Your task to perform on an android device: empty trash in the gmail app Image 0: 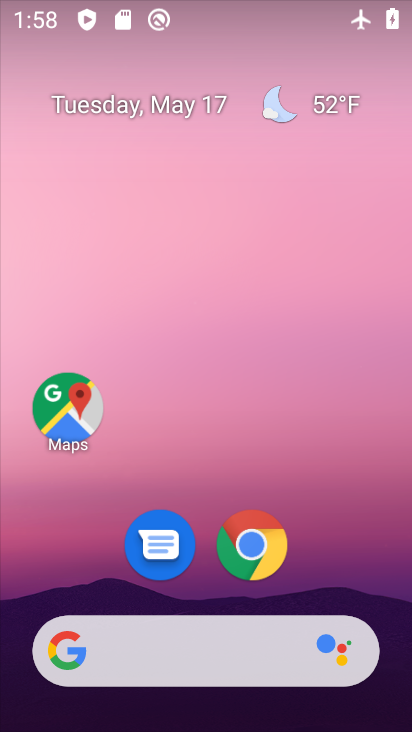
Step 0: drag from (364, 572) to (380, 80)
Your task to perform on an android device: empty trash in the gmail app Image 1: 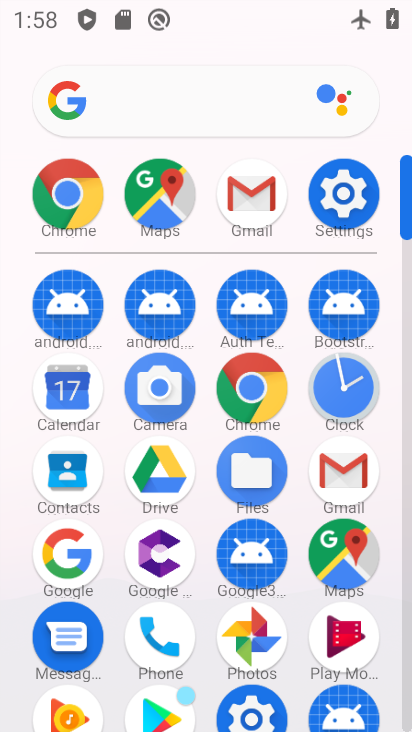
Step 1: click (365, 491)
Your task to perform on an android device: empty trash in the gmail app Image 2: 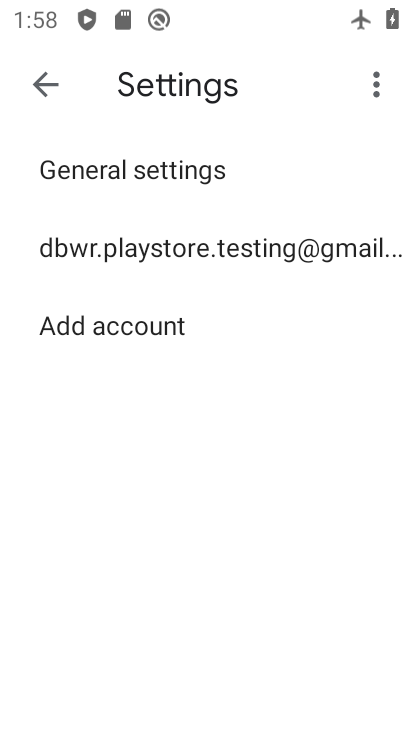
Step 2: click (28, 82)
Your task to perform on an android device: empty trash in the gmail app Image 3: 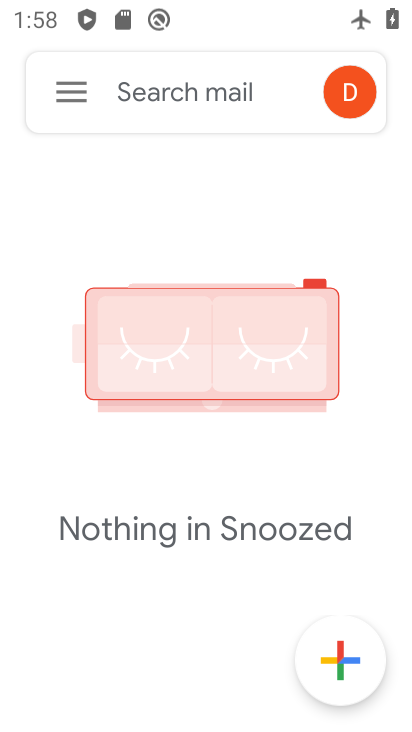
Step 3: click (75, 93)
Your task to perform on an android device: empty trash in the gmail app Image 4: 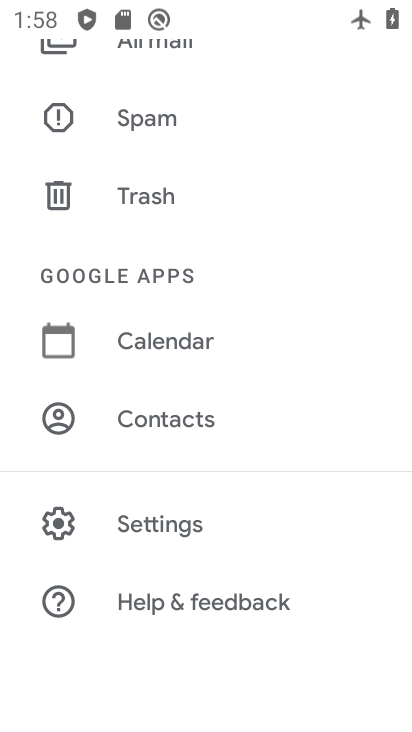
Step 4: drag from (346, 371) to (347, 492)
Your task to perform on an android device: empty trash in the gmail app Image 5: 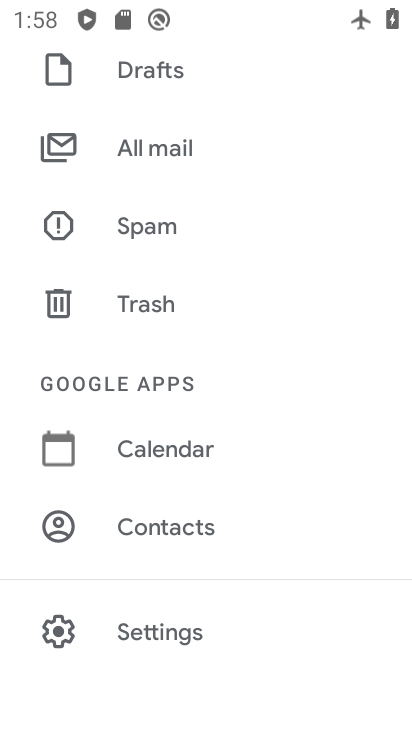
Step 5: drag from (345, 326) to (333, 460)
Your task to perform on an android device: empty trash in the gmail app Image 6: 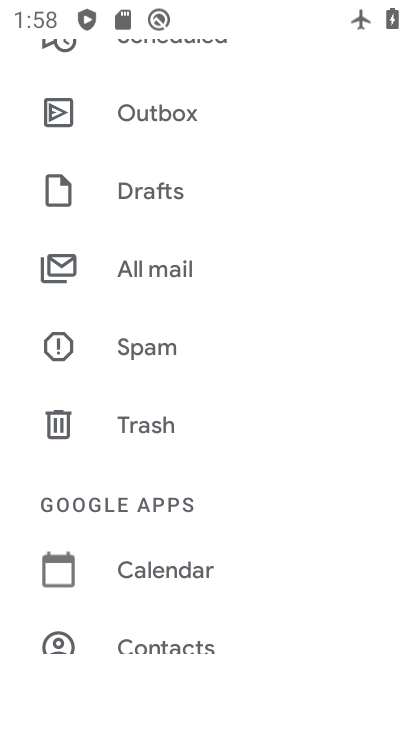
Step 6: drag from (316, 253) to (321, 440)
Your task to perform on an android device: empty trash in the gmail app Image 7: 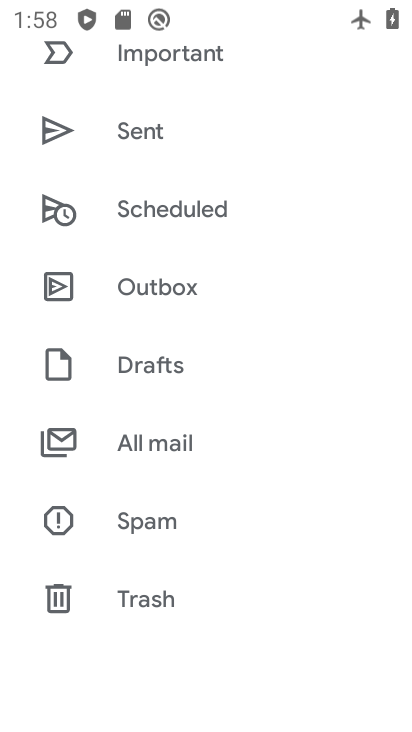
Step 7: drag from (326, 224) to (329, 401)
Your task to perform on an android device: empty trash in the gmail app Image 8: 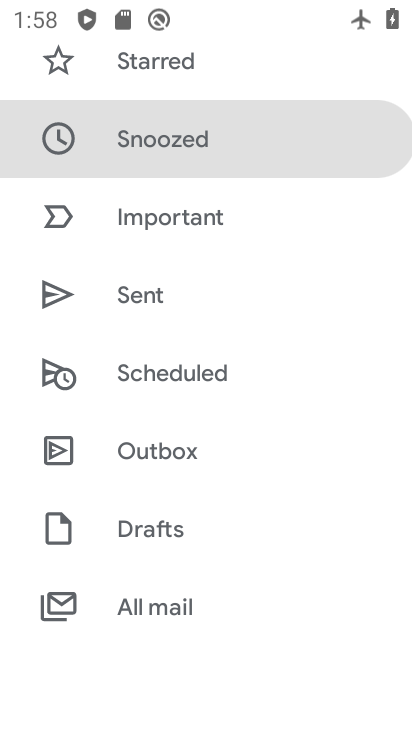
Step 8: drag from (312, 225) to (298, 410)
Your task to perform on an android device: empty trash in the gmail app Image 9: 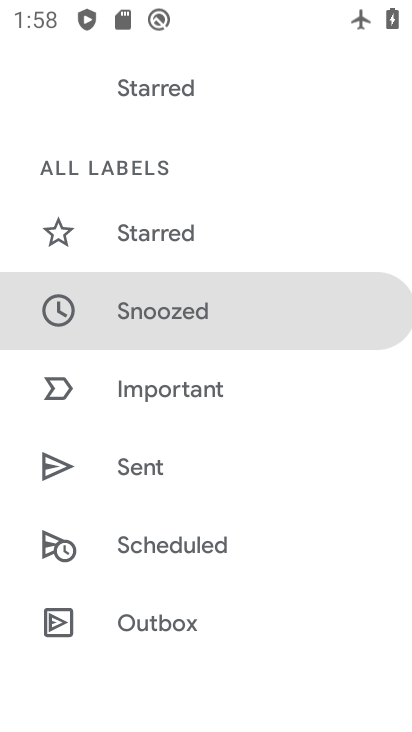
Step 9: drag from (290, 212) to (267, 420)
Your task to perform on an android device: empty trash in the gmail app Image 10: 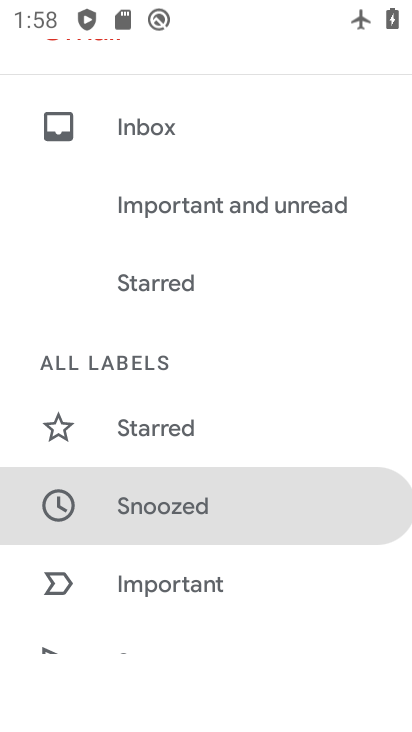
Step 10: drag from (270, 427) to (278, 266)
Your task to perform on an android device: empty trash in the gmail app Image 11: 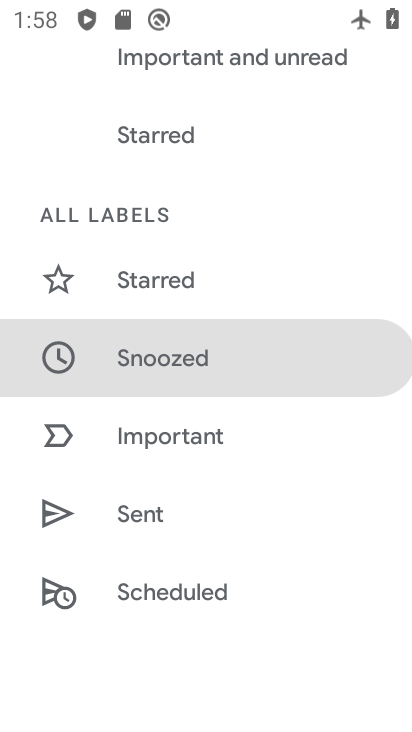
Step 11: drag from (271, 571) to (308, 355)
Your task to perform on an android device: empty trash in the gmail app Image 12: 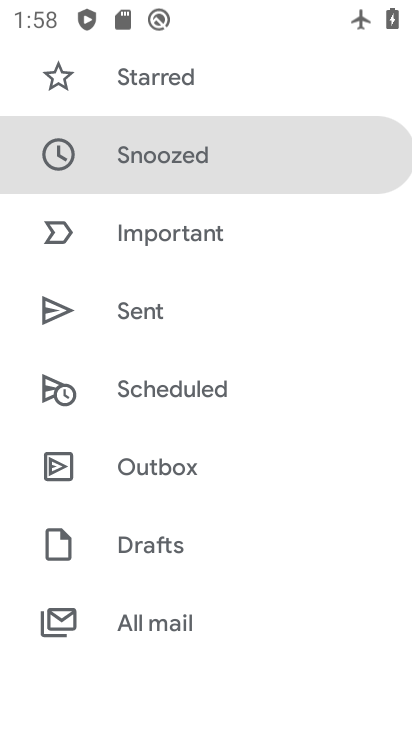
Step 12: drag from (303, 556) to (314, 385)
Your task to perform on an android device: empty trash in the gmail app Image 13: 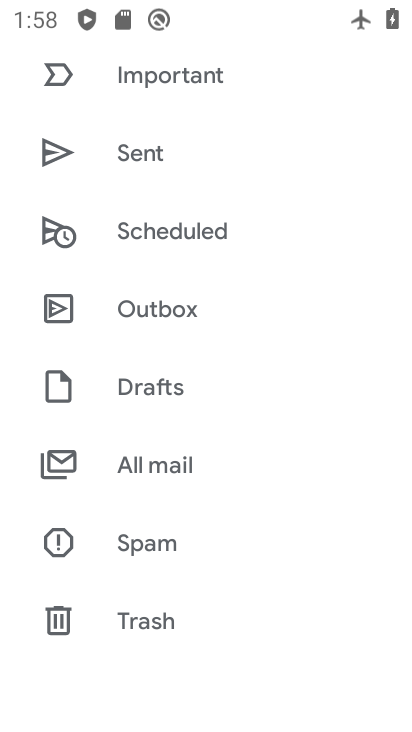
Step 13: drag from (281, 609) to (292, 483)
Your task to perform on an android device: empty trash in the gmail app Image 14: 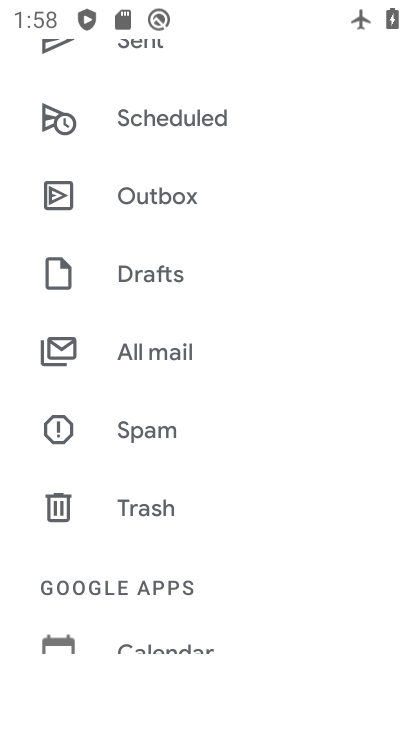
Step 14: drag from (293, 618) to (313, 437)
Your task to perform on an android device: empty trash in the gmail app Image 15: 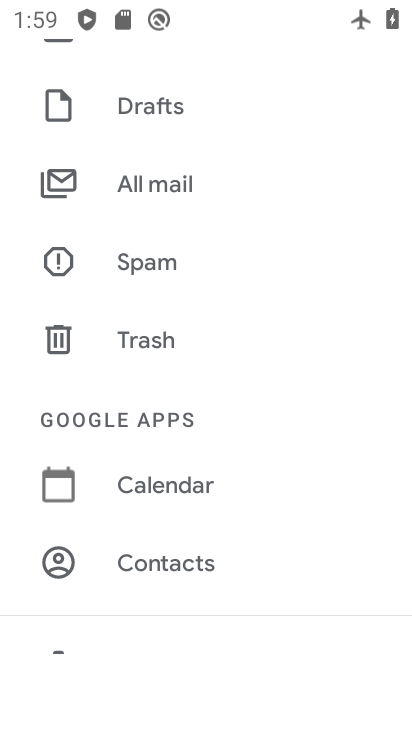
Step 15: click (182, 344)
Your task to perform on an android device: empty trash in the gmail app Image 16: 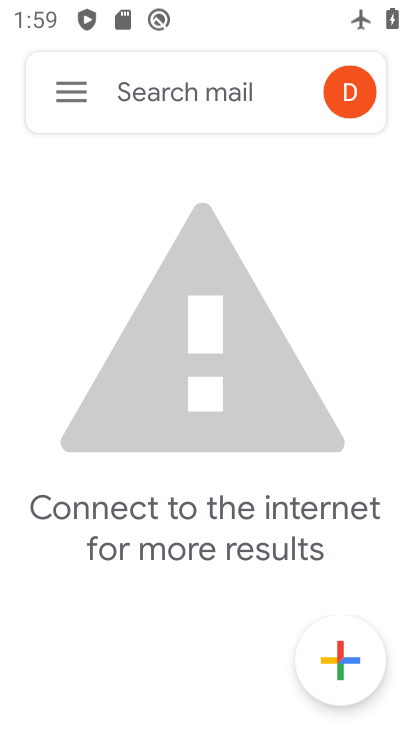
Step 16: task complete